Your task to perform on an android device: Set the phone to "Do not disturb". Image 0: 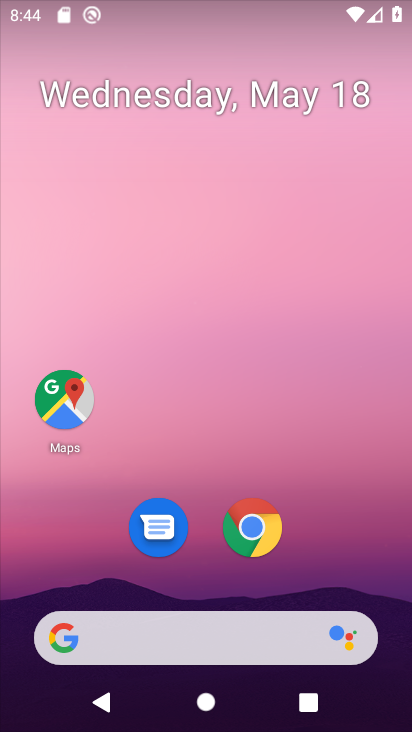
Step 0: click (277, 585)
Your task to perform on an android device: Set the phone to "Do not disturb". Image 1: 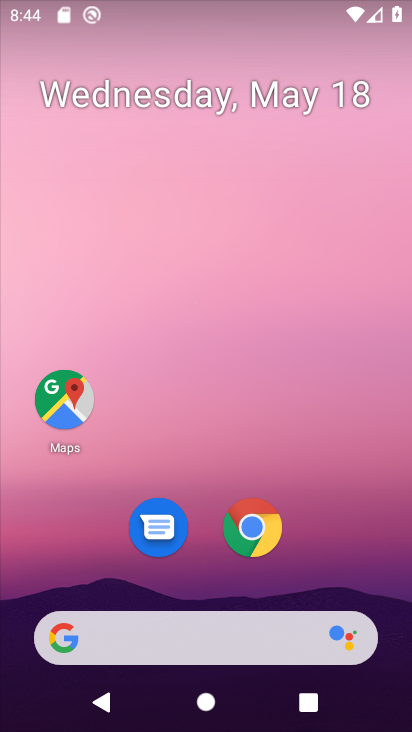
Step 1: click (195, 624)
Your task to perform on an android device: Set the phone to "Do not disturb". Image 2: 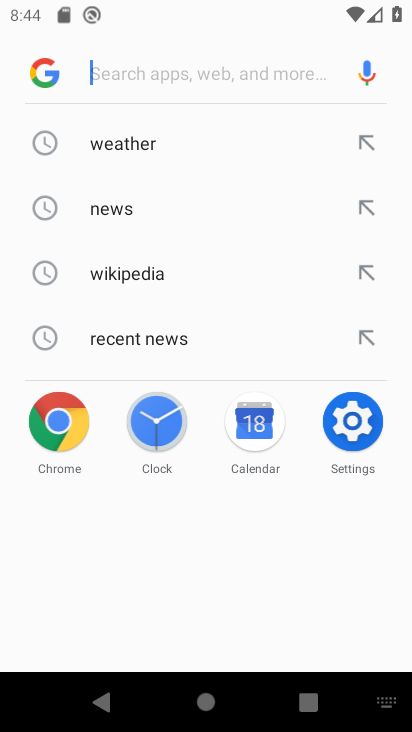
Step 2: click (136, 77)
Your task to perform on an android device: Set the phone to "Do not disturb". Image 3: 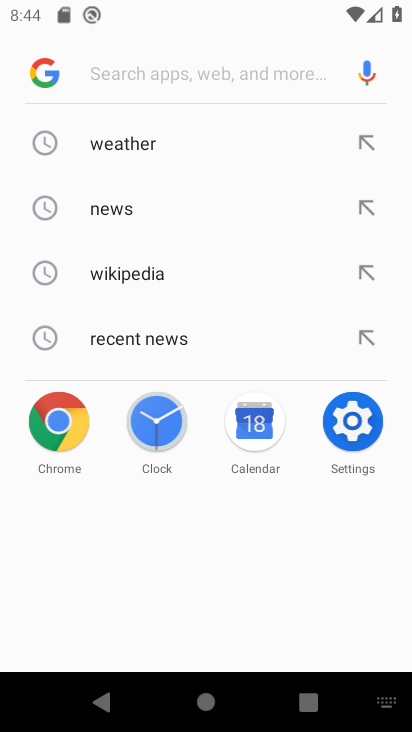
Step 3: type "recent news"
Your task to perform on an android device: Set the phone to "Do not disturb". Image 4: 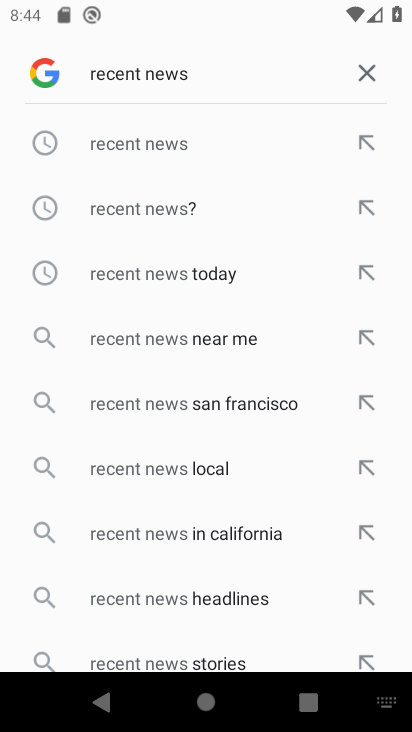
Step 4: click (159, 151)
Your task to perform on an android device: Set the phone to "Do not disturb". Image 5: 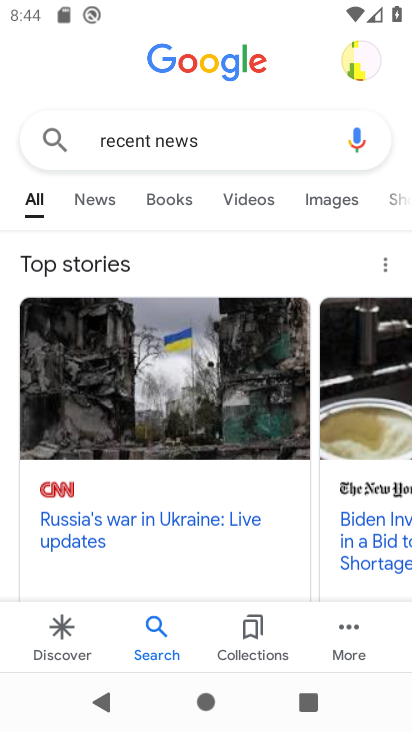
Step 5: task complete